Your task to perform on an android device: change your default location settings in chrome Image 0: 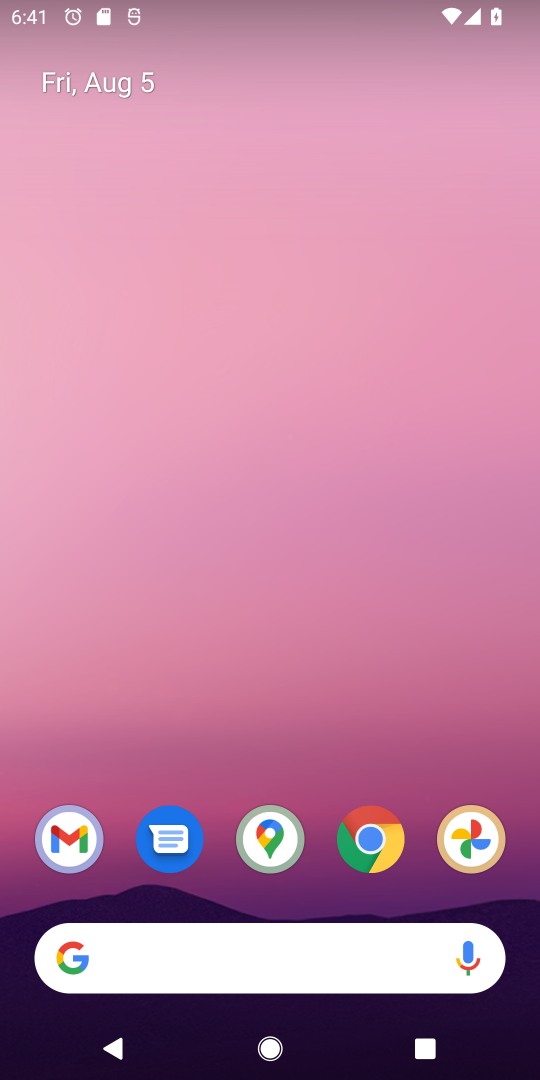
Step 0: click (392, 866)
Your task to perform on an android device: change your default location settings in chrome Image 1: 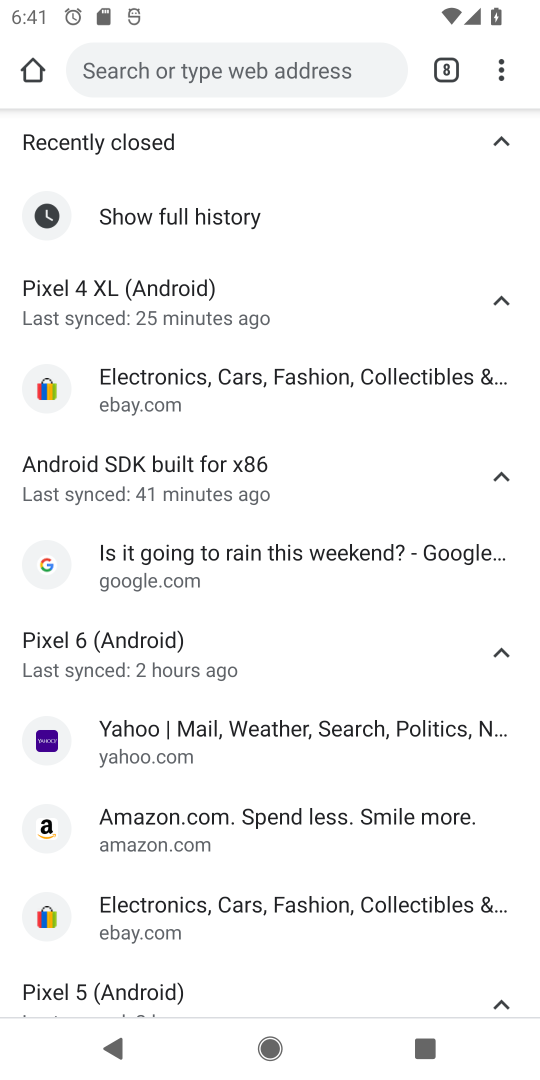
Step 1: click (495, 85)
Your task to perform on an android device: change your default location settings in chrome Image 2: 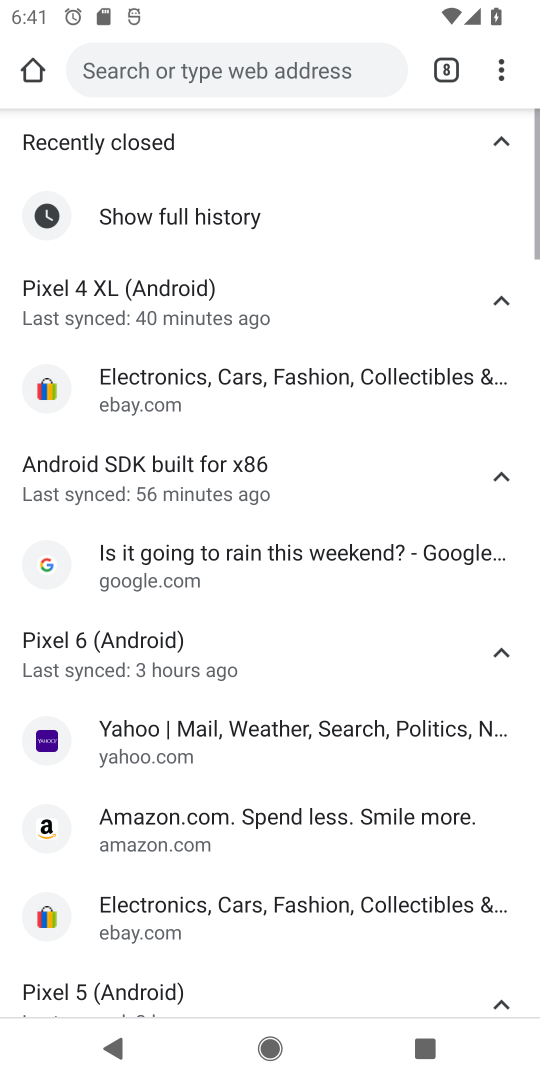
Step 2: drag from (495, 85) to (285, 649)
Your task to perform on an android device: change your default location settings in chrome Image 3: 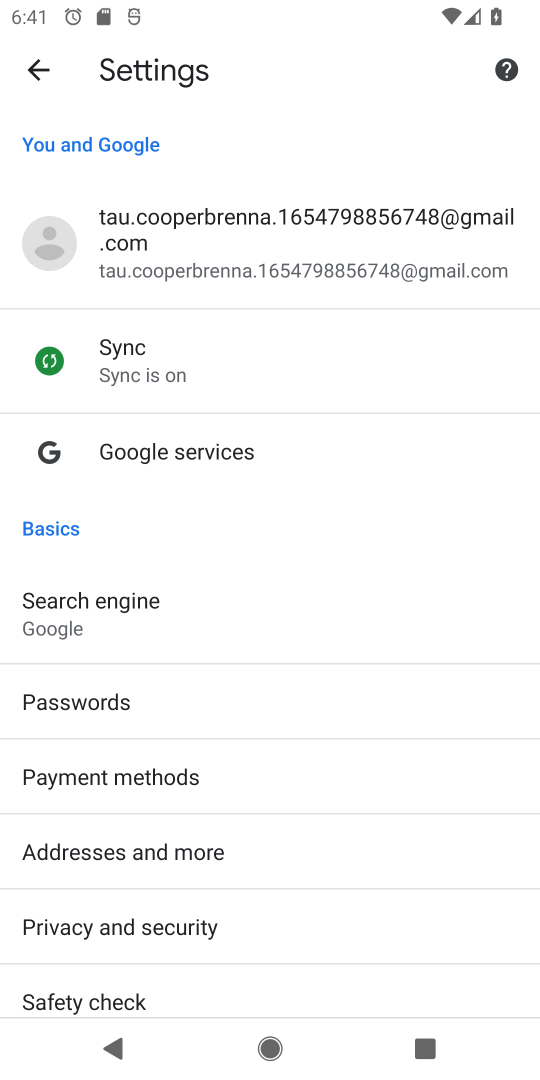
Step 3: drag from (309, 868) to (326, 322)
Your task to perform on an android device: change your default location settings in chrome Image 4: 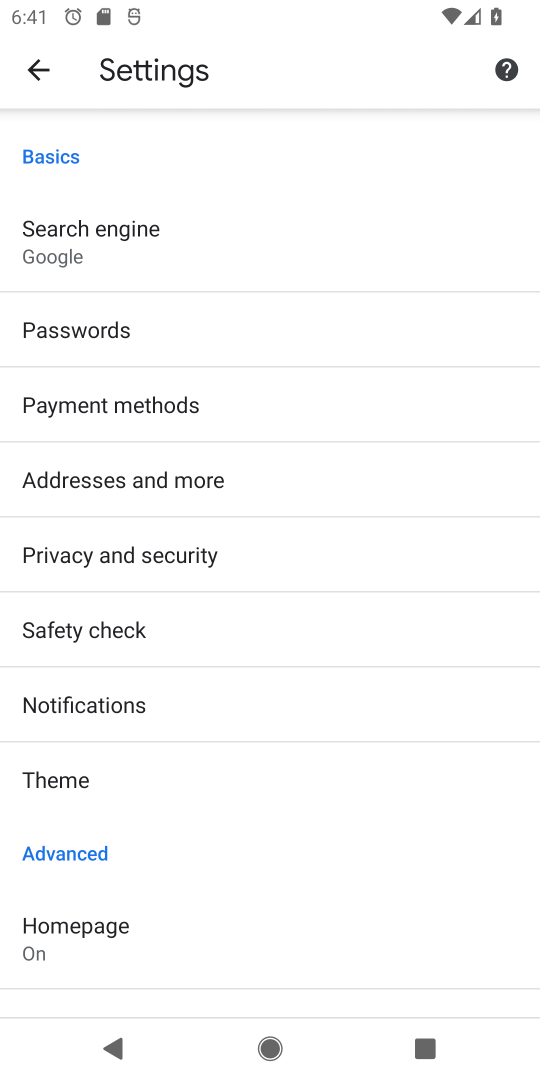
Step 4: drag from (333, 870) to (351, 339)
Your task to perform on an android device: change your default location settings in chrome Image 5: 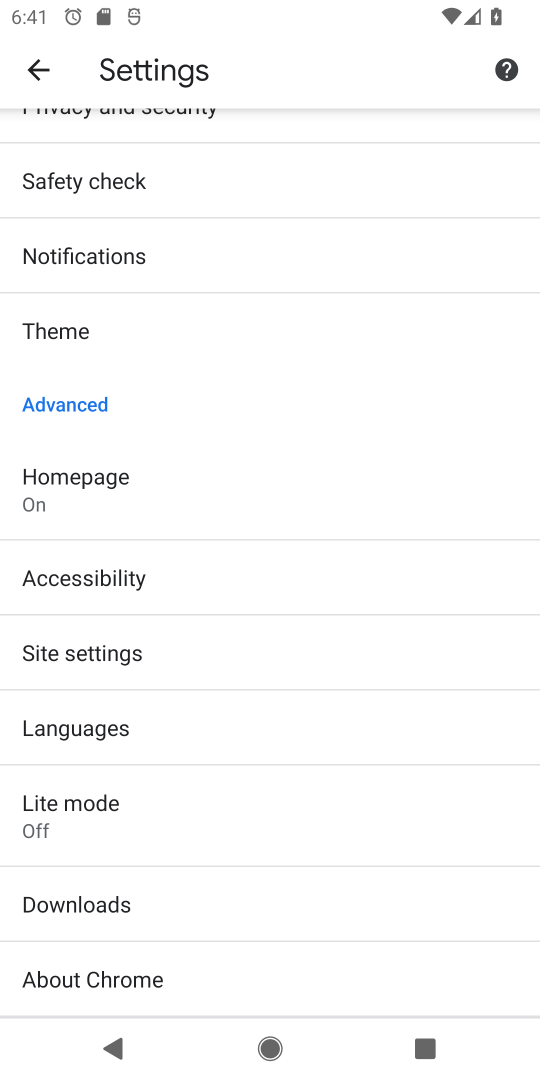
Step 5: drag from (256, 912) to (305, 368)
Your task to perform on an android device: change your default location settings in chrome Image 6: 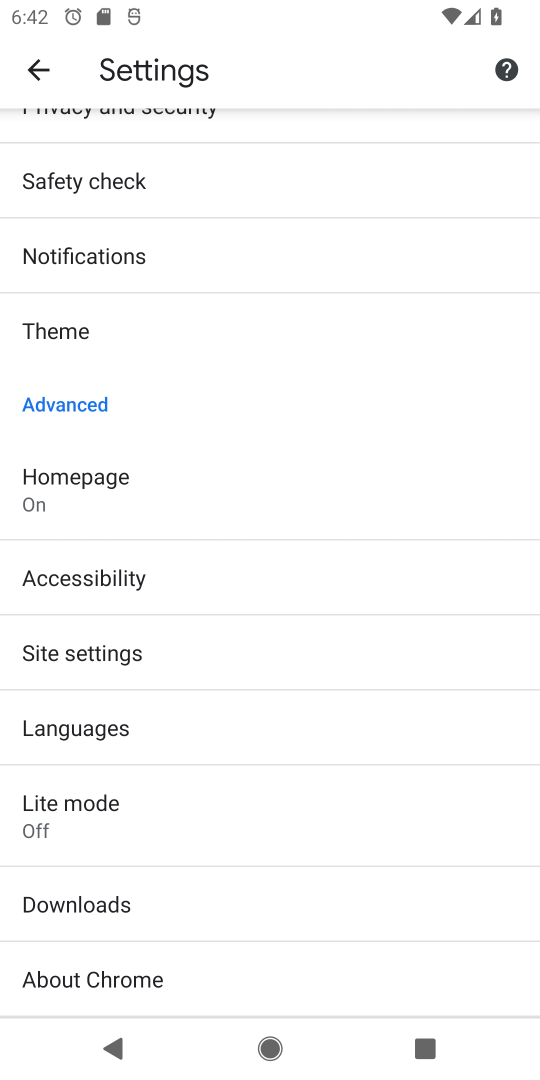
Step 6: drag from (269, 619) to (270, 765)
Your task to perform on an android device: change your default location settings in chrome Image 7: 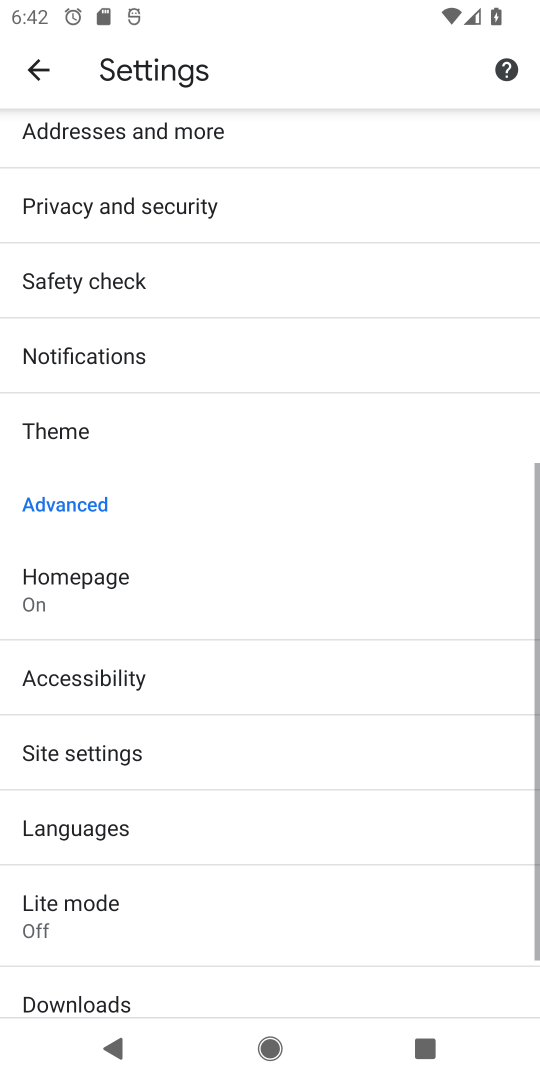
Step 7: drag from (229, 442) to (261, 660)
Your task to perform on an android device: change your default location settings in chrome Image 8: 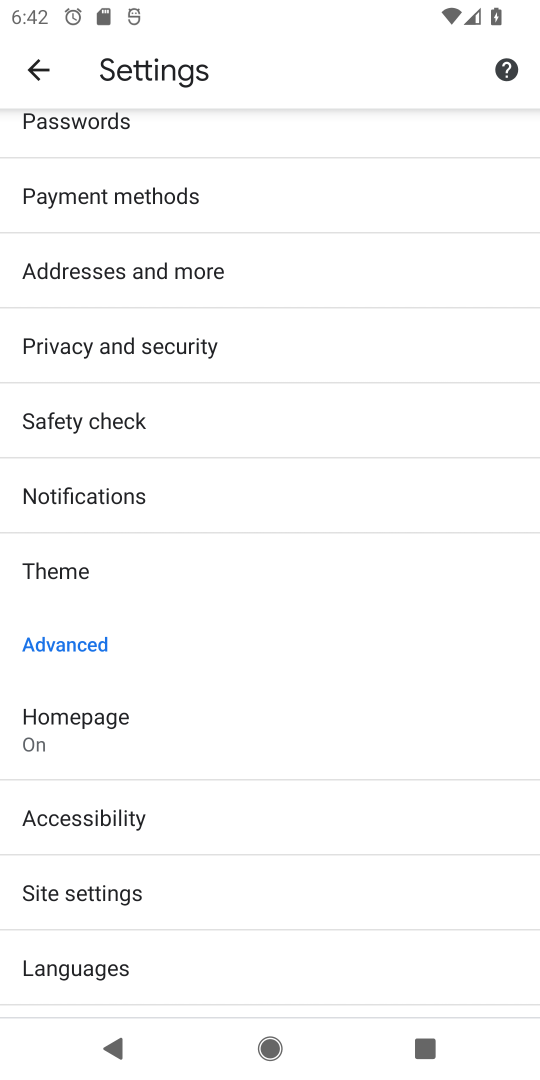
Step 8: click (201, 872)
Your task to perform on an android device: change your default location settings in chrome Image 9: 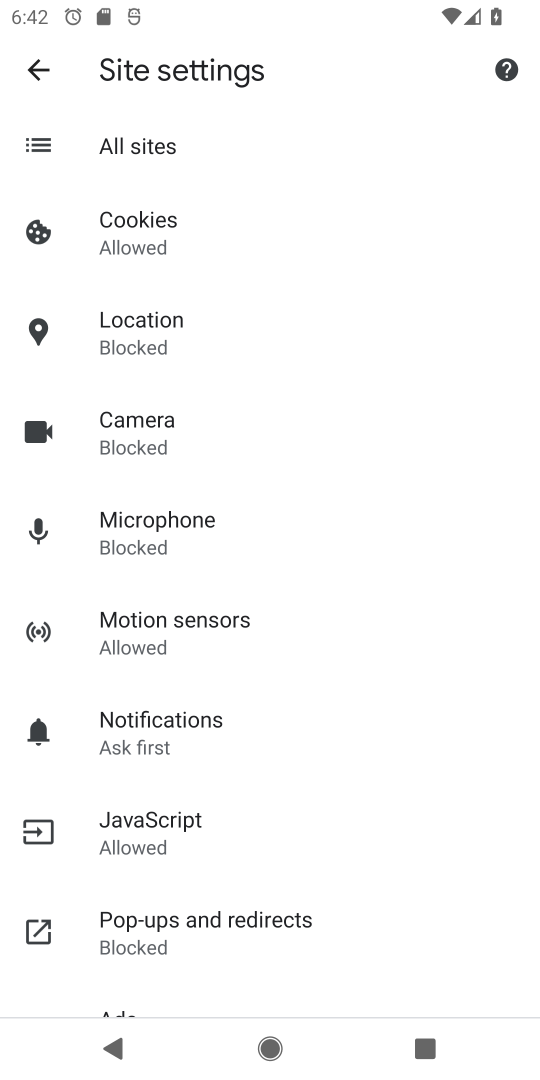
Step 9: click (212, 326)
Your task to perform on an android device: change your default location settings in chrome Image 10: 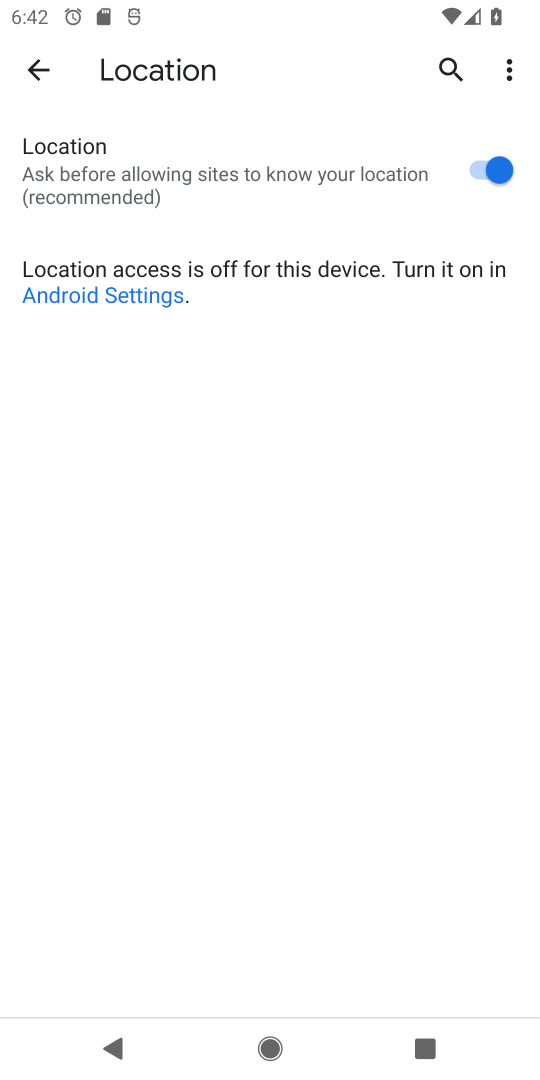
Step 10: task complete